Your task to perform on an android device: Go to internet settings Image 0: 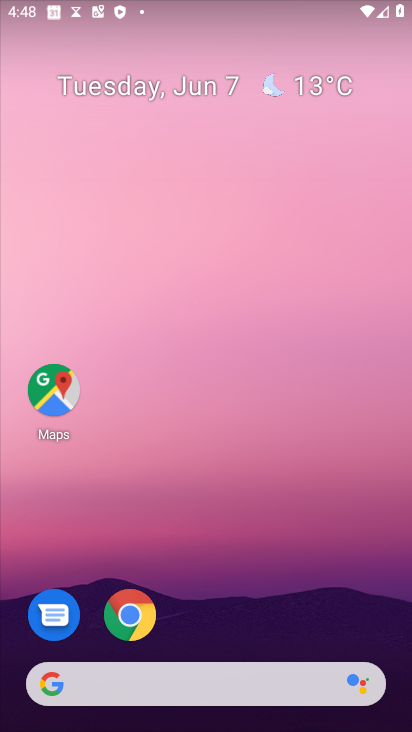
Step 0: drag from (108, 215) to (375, 408)
Your task to perform on an android device: Go to internet settings Image 1: 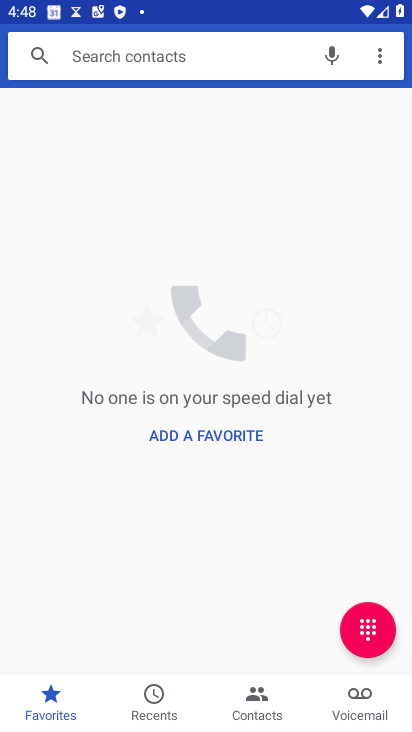
Step 1: press back button
Your task to perform on an android device: Go to internet settings Image 2: 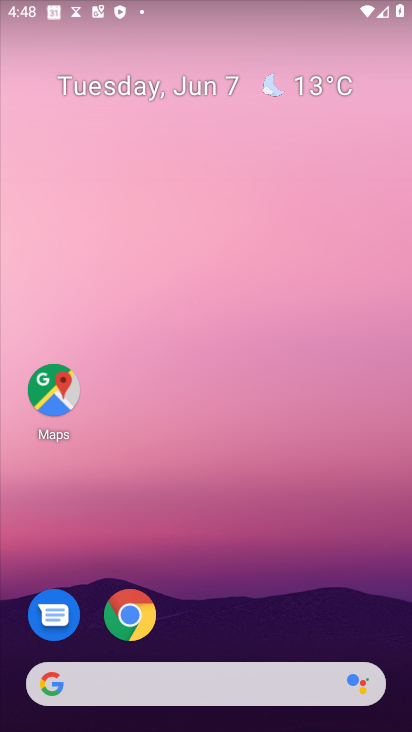
Step 2: drag from (176, 654) to (93, 17)
Your task to perform on an android device: Go to internet settings Image 3: 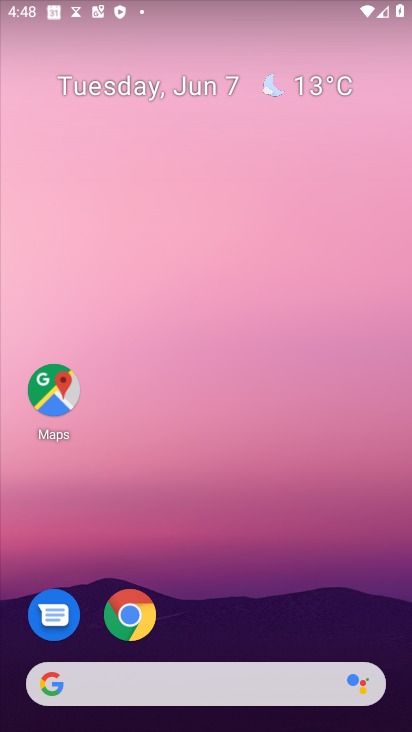
Step 3: drag from (220, 485) to (158, 78)
Your task to perform on an android device: Go to internet settings Image 4: 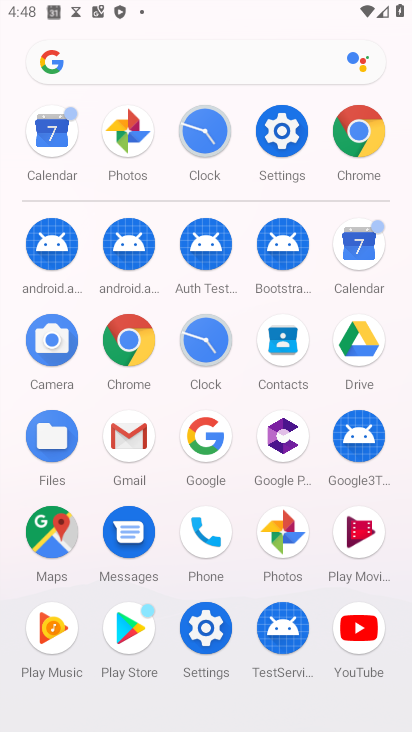
Step 4: click (209, 633)
Your task to perform on an android device: Go to internet settings Image 5: 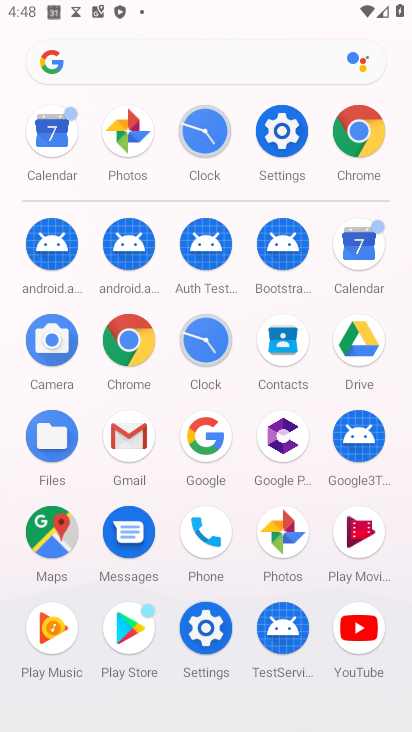
Step 5: click (210, 632)
Your task to perform on an android device: Go to internet settings Image 6: 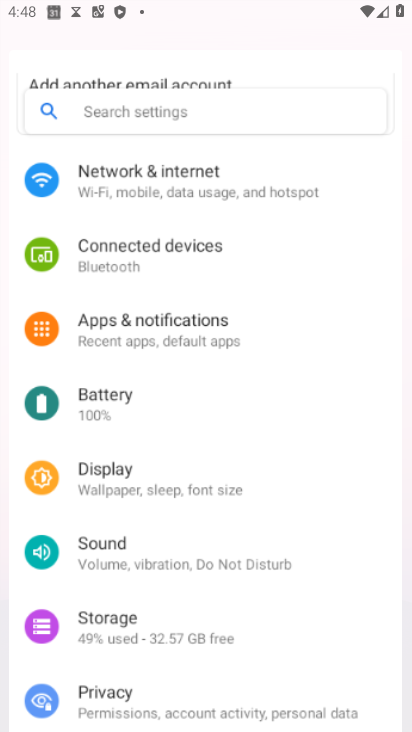
Step 6: click (210, 632)
Your task to perform on an android device: Go to internet settings Image 7: 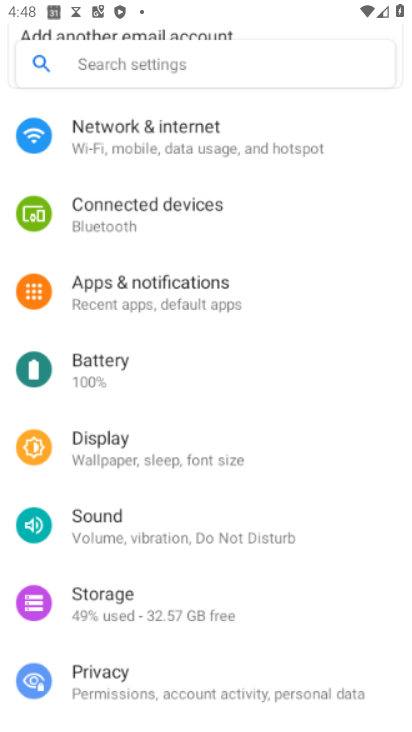
Step 7: click (210, 632)
Your task to perform on an android device: Go to internet settings Image 8: 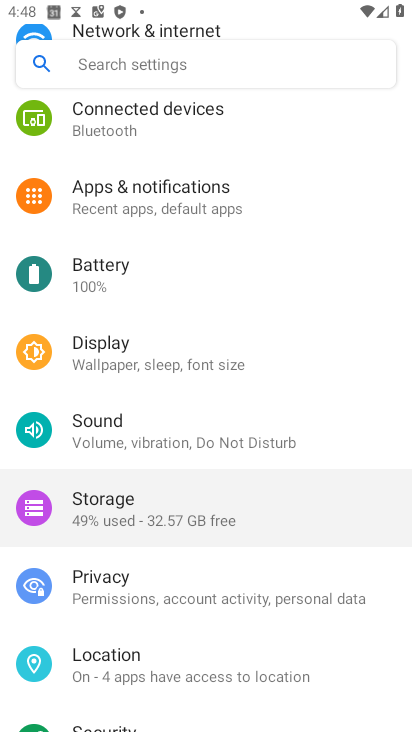
Step 8: click (214, 619)
Your task to perform on an android device: Go to internet settings Image 9: 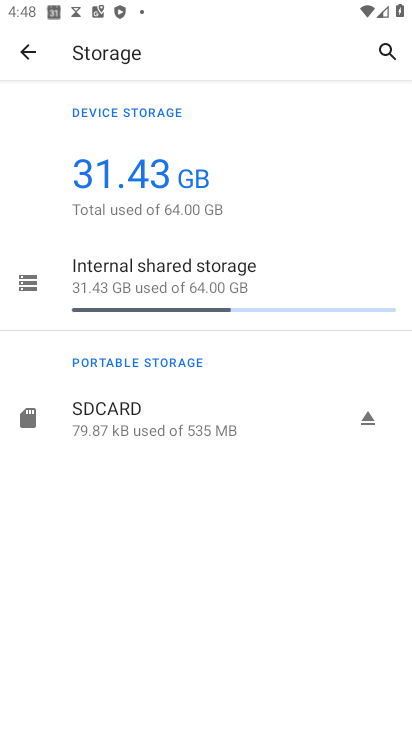
Step 9: click (20, 48)
Your task to perform on an android device: Go to internet settings Image 10: 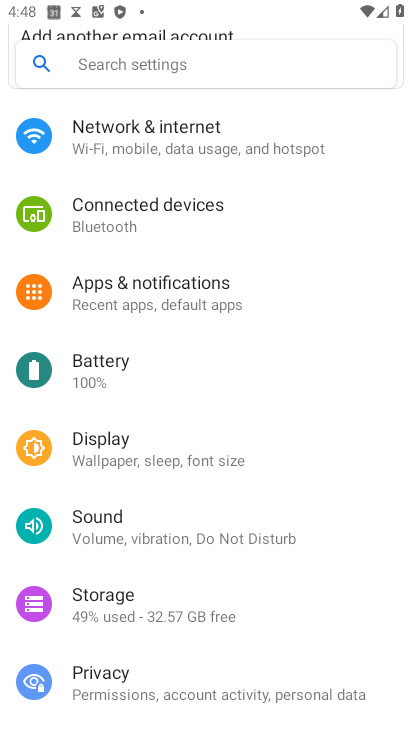
Step 10: click (159, 140)
Your task to perform on an android device: Go to internet settings Image 11: 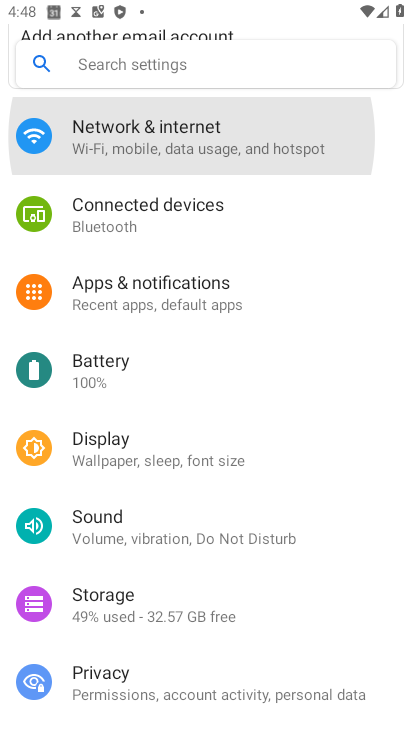
Step 11: click (162, 141)
Your task to perform on an android device: Go to internet settings Image 12: 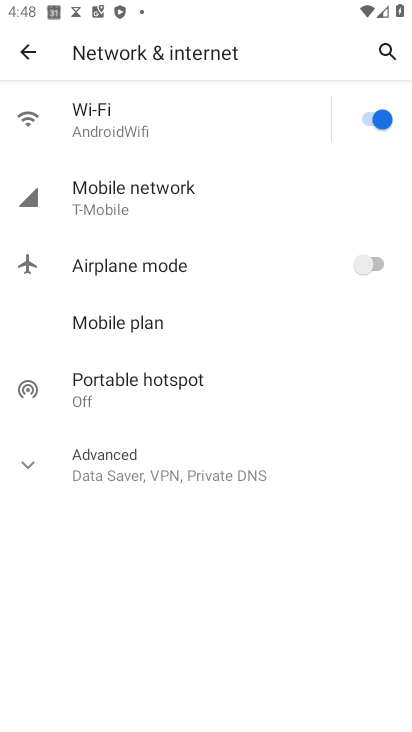
Step 12: click (166, 141)
Your task to perform on an android device: Go to internet settings Image 13: 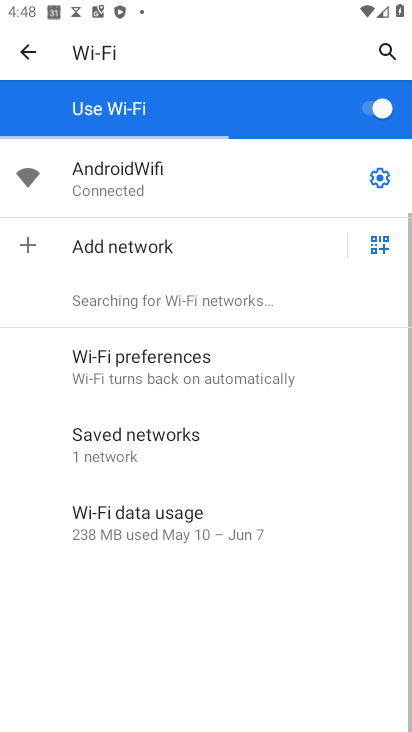
Step 13: task complete